Your task to perform on an android device: Open the phone app and click the voicemail tab. Image 0: 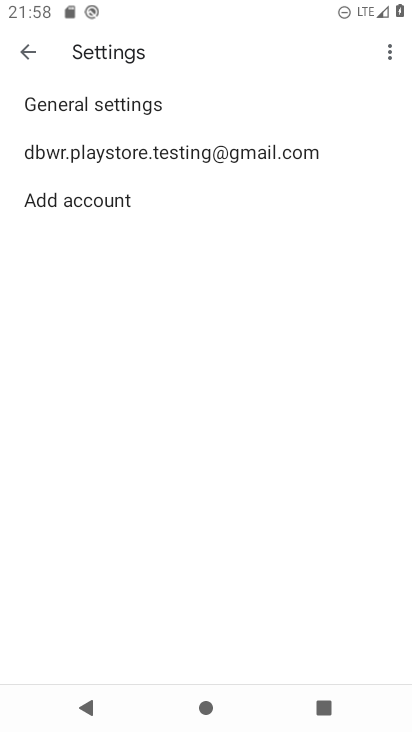
Step 0: press home button
Your task to perform on an android device: Open the phone app and click the voicemail tab. Image 1: 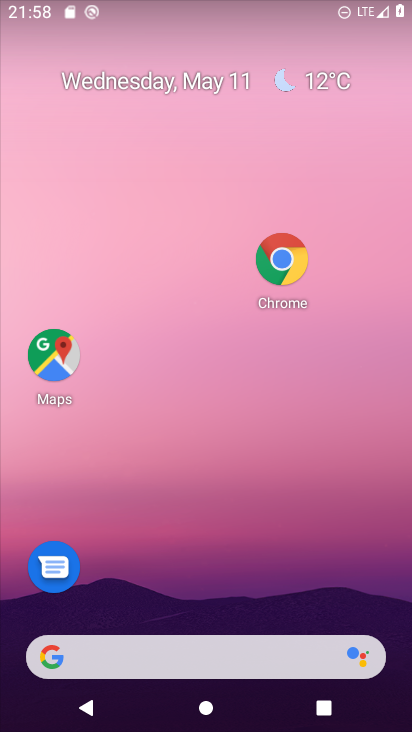
Step 1: drag from (175, 655) to (267, 187)
Your task to perform on an android device: Open the phone app and click the voicemail tab. Image 2: 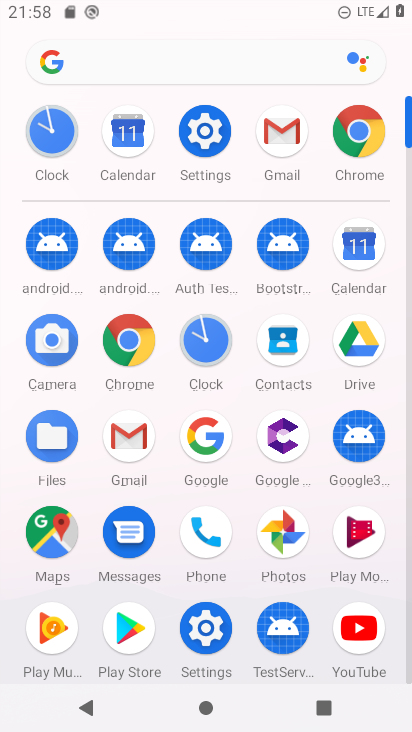
Step 2: click (200, 541)
Your task to perform on an android device: Open the phone app and click the voicemail tab. Image 3: 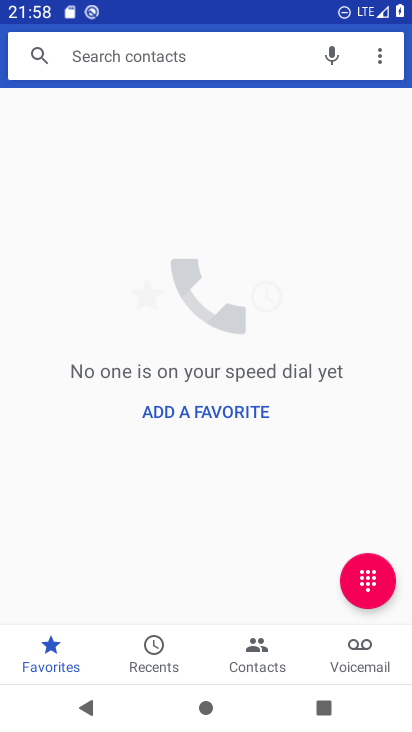
Step 3: click (359, 644)
Your task to perform on an android device: Open the phone app and click the voicemail tab. Image 4: 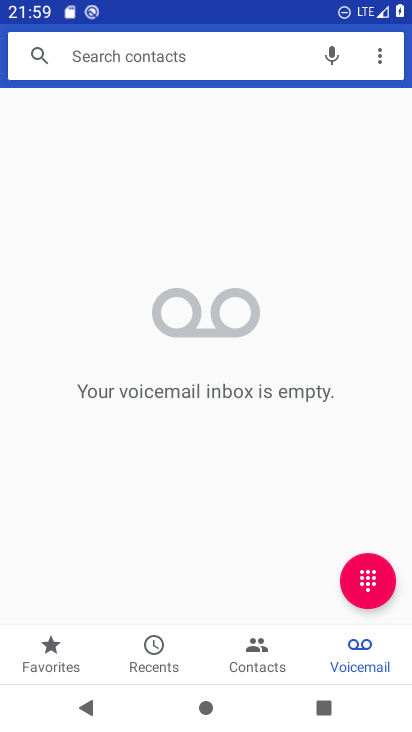
Step 4: task complete